Your task to perform on an android device: see creations saved in the google photos Image 0: 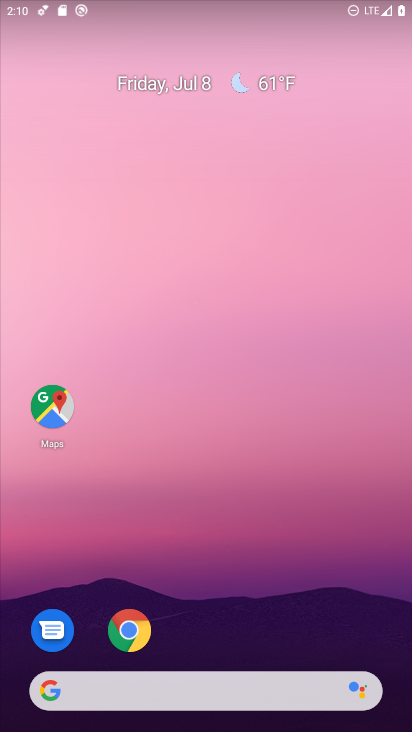
Step 0: drag from (309, 255) to (258, 13)
Your task to perform on an android device: see creations saved in the google photos Image 1: 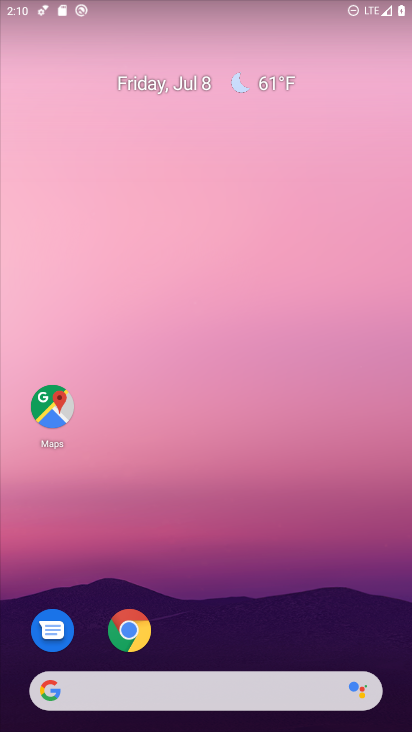
Step 1: drag from (358, 639) to (254, 32)
Your task to perform on an android device: see creations saved in the google photos Image 2: 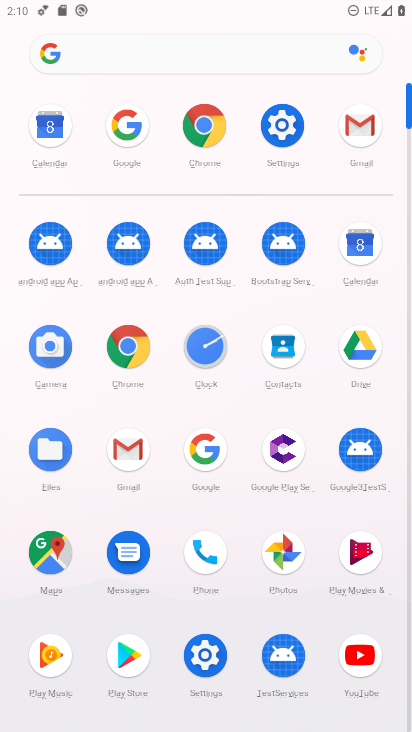
Step 2: click (287, 558)
Your task to perform on an android device: see creations saved in the google photos Image 3: 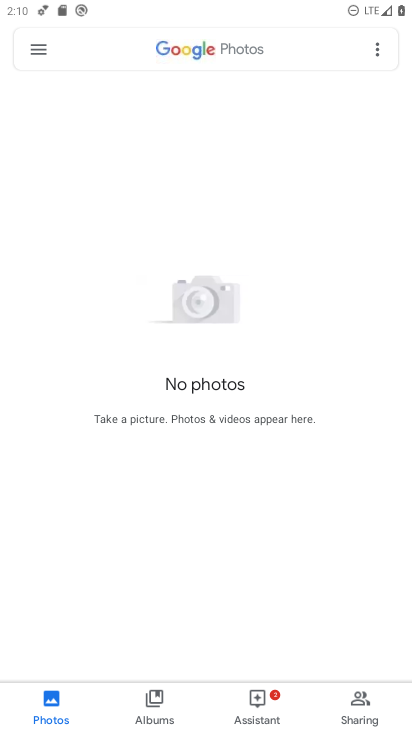
Step 3: click (20, 45)
Your task to perform on an android device: see creations saved in the google photos Image 4: 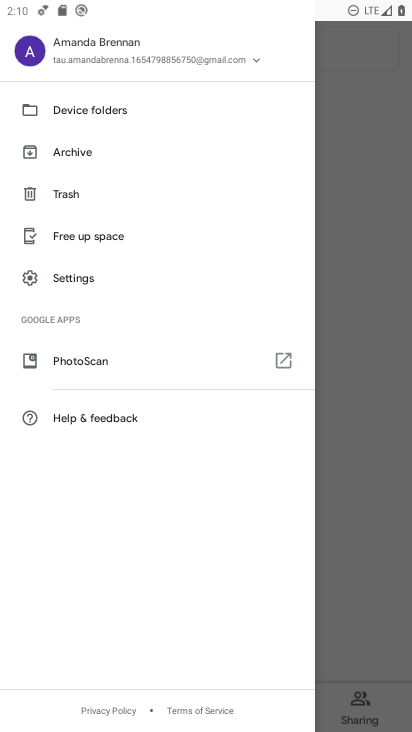
Step 4: press back button
Your task to perform on an android device: see creations saved in the google photos Image 5: 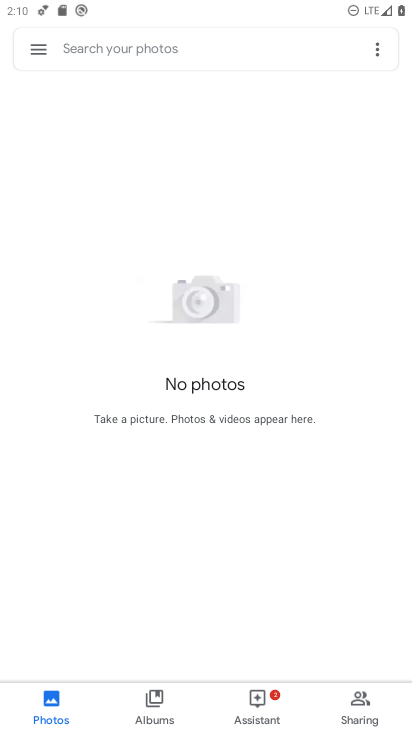
Step 5: click (186, 47)
Your task to perform on an android device: see creations saved in the google photos Image 6: 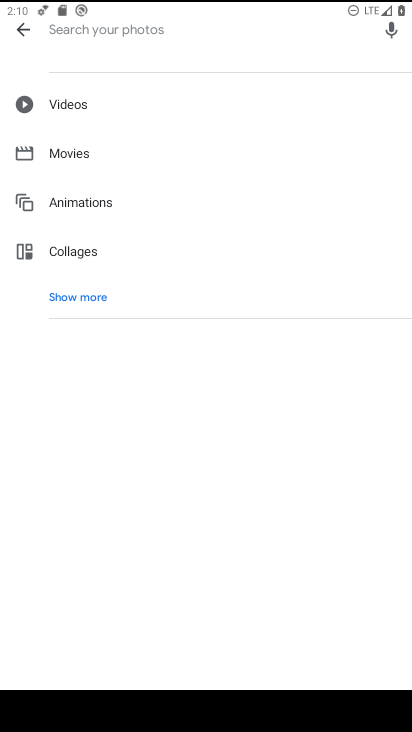
Step 6: click (79, 296)
Your task to perform on an android device: see creations saved in the google photos Image 7: 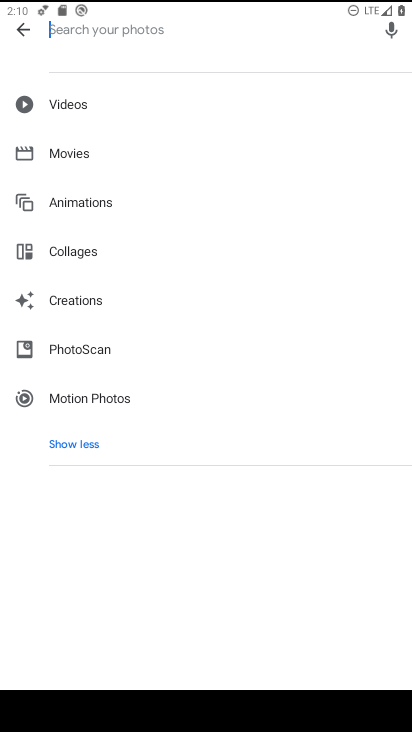
Step 7: click (79, 296)
Your task to perform on an android device: see creations saved in the google photos Image 8: 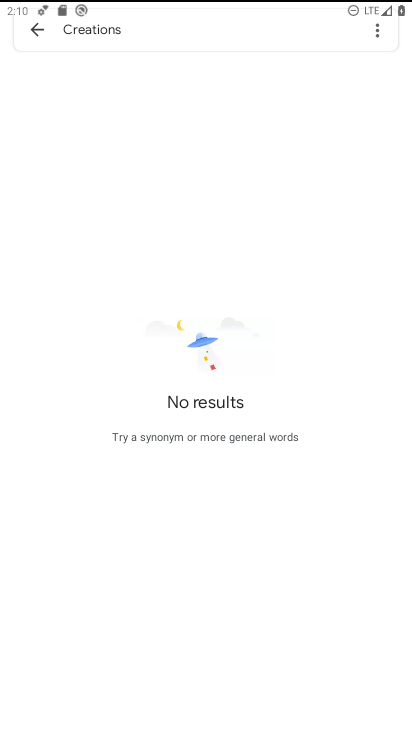
Step 8: task complete